Your task to perform on an android device: Is it going to rain tomorrow? Image 0: 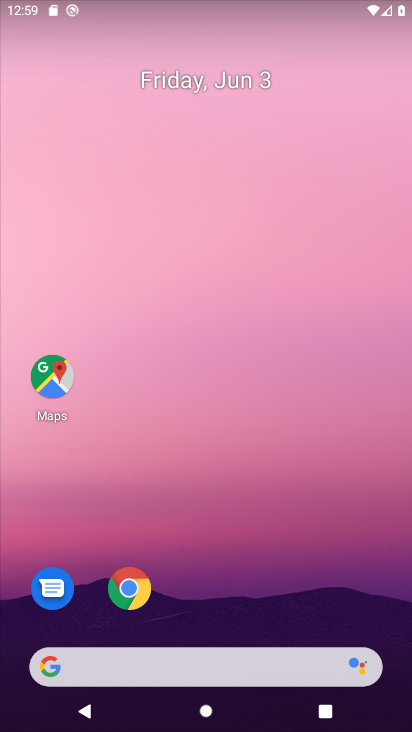
Step 0: drag from (220, 338) to (217, 203)
Your task to perform on an android device: Is it going to rain tomorrow? Image 1: 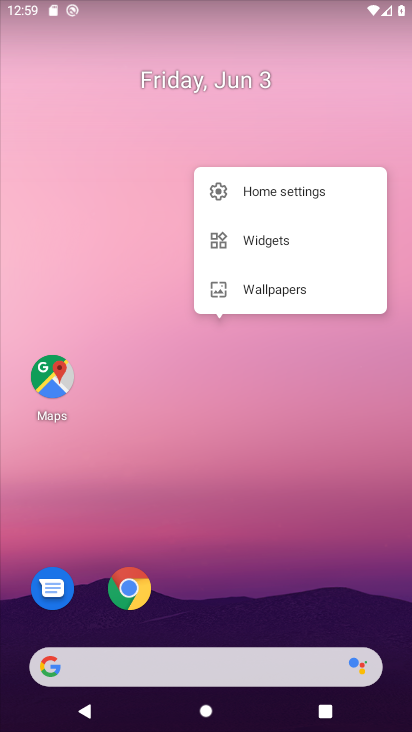
Step 1: click (214, 656)
Your task to perform on an android device: Is it going to rain tomorrow? Image 2: 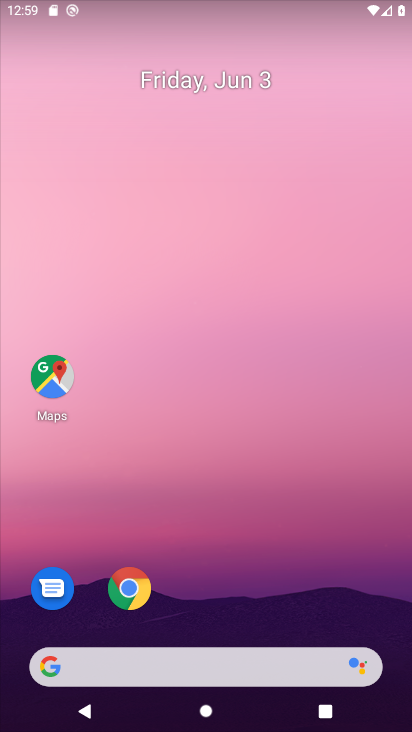
Step 2: click (198, 660)
Your task to perform on an android device: Is it going to rain tomorrow? Image 3: 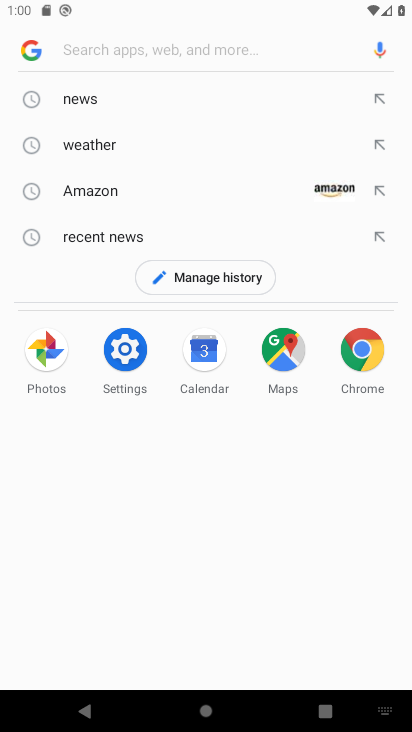
Step 3: type "Is it going to rain tomorrow?"
Your task to perform on an android device: Is it going to rain tomorrow? Image 4: 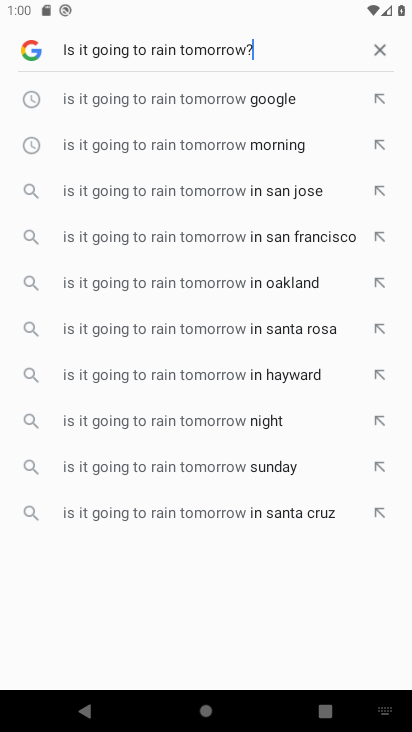
Step 4: click (216, 95)
Your task to perform on an android device: Is it going to rain tomorrow? Image 5: 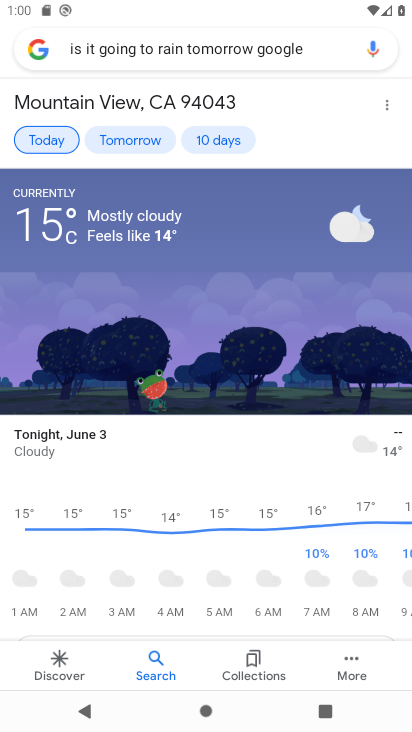
Step 5: task complete